Your task to perform on an android device: Search for Italian restaurants on Maps Image 0: 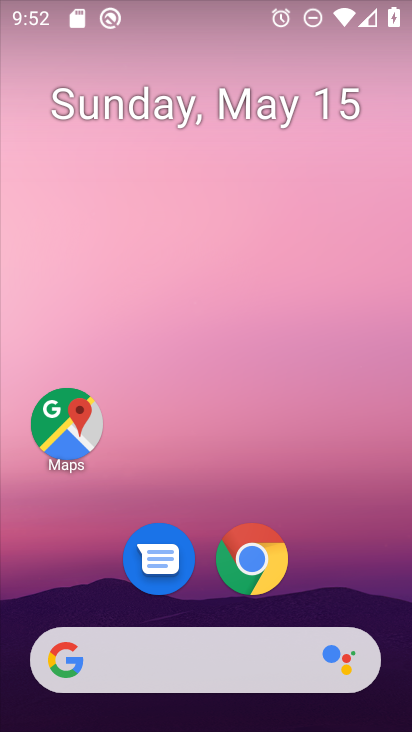
Step 0: click (71, 439)
Your task to perform on an android device: Search for Italian restaurants on Maps Image 1: 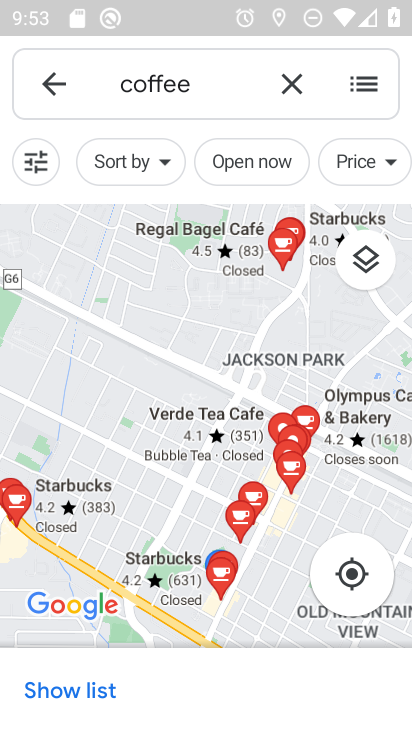
Step 1: click (285, 79)
Your task to perform on an android device: Search for Italian restaurants on Maps Image 2: 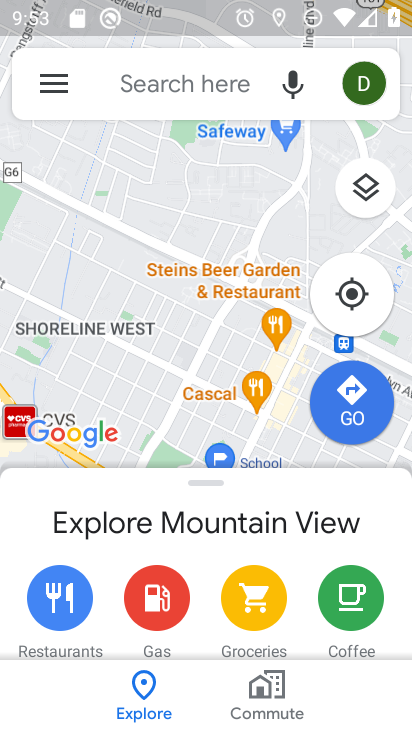
Step 2: click (285, 79)
Your task to perform on an android device: Search for Italian restaurants on Maps Image 3: 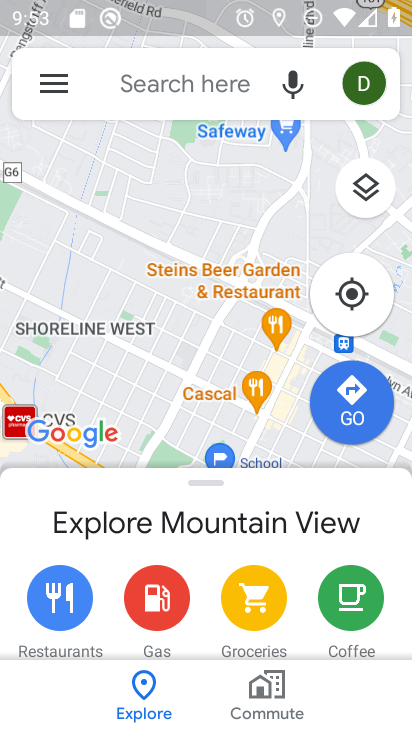
Step 3: click (213, 87)
Your task to perform on an android device: Search for Italian restaurants on Maps Image 4: 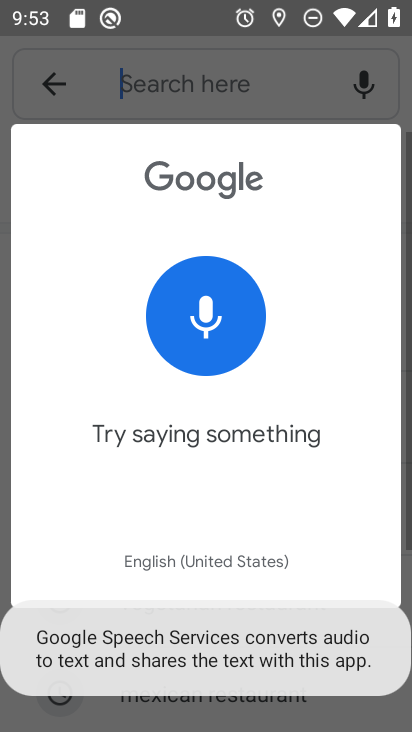
Step 4: click (213, 87)
Your task to perform on an android device: Search for Italian restaurants on Maps Image 5: 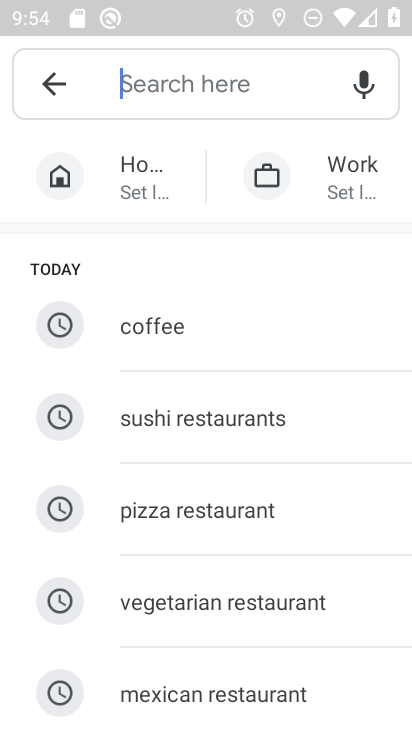
Step 5: type "italian"
Your task to perform on an android device: Search for Italian restaurants on Maps Image 6: 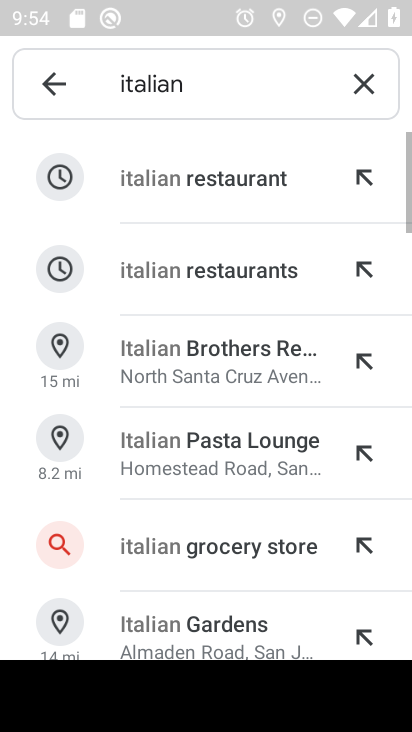
Step 6: click (179, 187)
Your task to perform on an android device: Search for Italian restaurants on Maps Image 7: 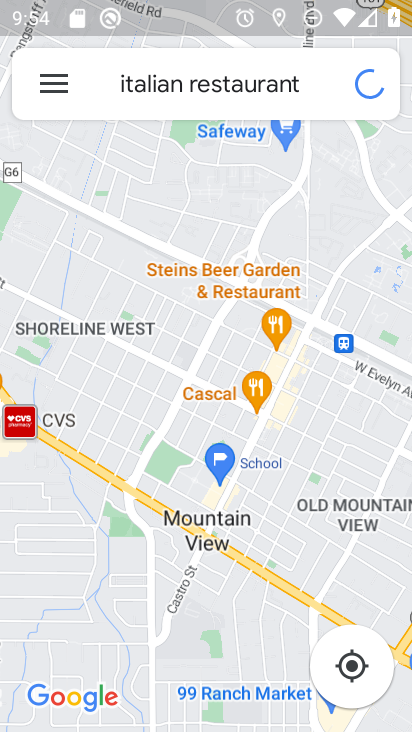
Step 7: task complete